Your task to perform on an android device: open a bookmark in the chrome app Image 0: 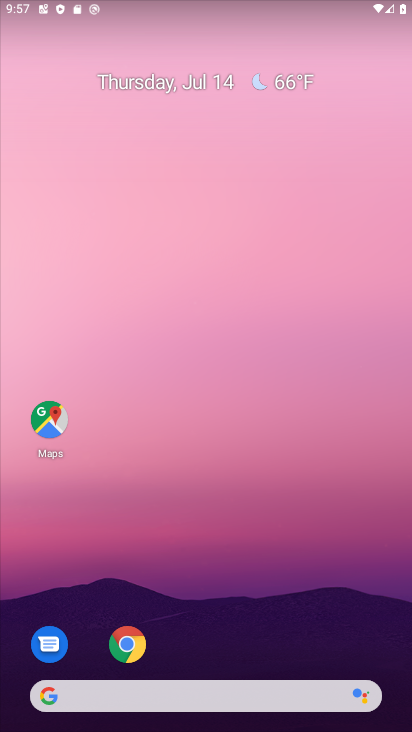
Step 0: click (380, 307)
Your task to perform on an android device: open a bookmark in the chrome app Image 1: 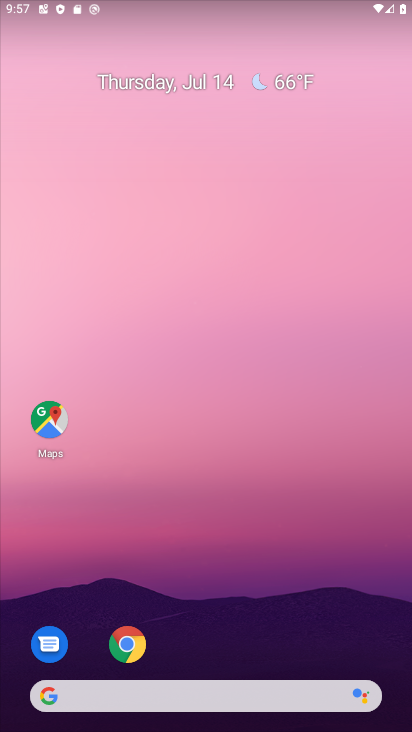
Step 1: drag from (278, 278) to (302, 61)
Your task to perform on an android device: open a bookmark in the chrome app Image 2: 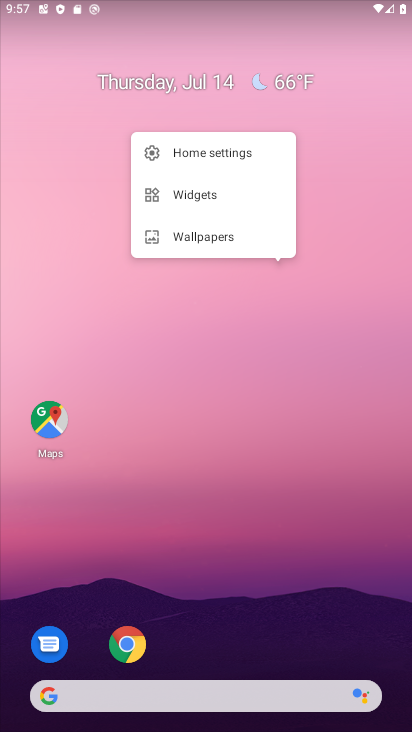
Step 2: drag from (154, 345) to (157, 1)
Your task to perform on an android device: open a bookmark in the chrome app Image 3: 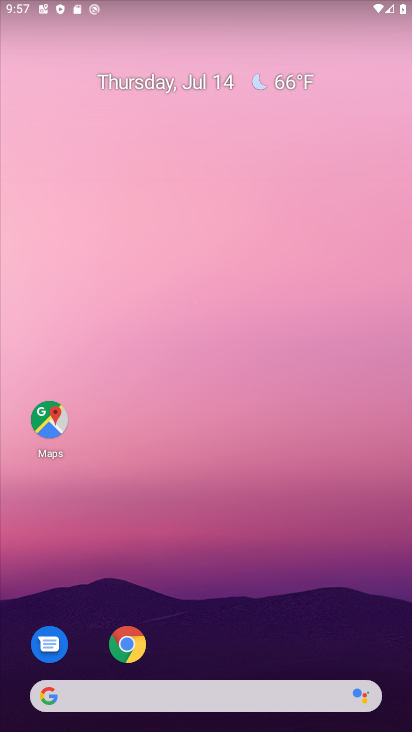
Step 3: drag from (307, 326) to (309, 37)
Your task to perform on an android device: open a bookmark in the chrome app Image 4: 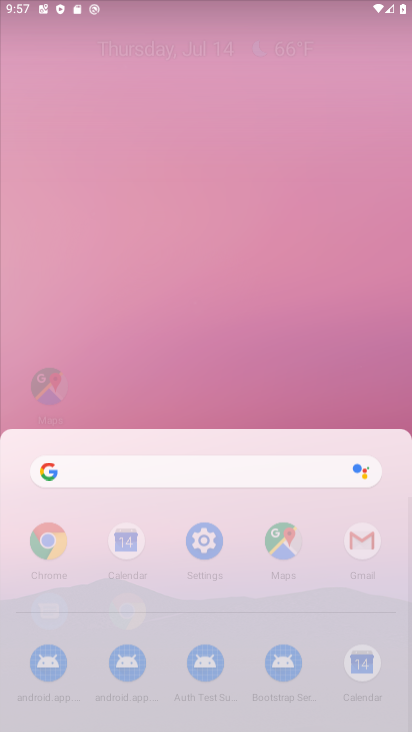
Step 4: drag from (290, 151) to (251, 7)
Your task to perform on an android device: open a bookmark in the chrome app Image 5: 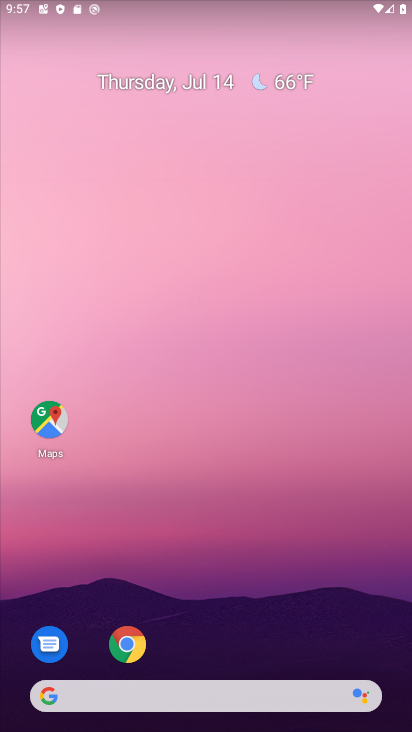
Step 5: drag from (183, 292) to (149, 183)
Your task to perform on an android device: open a bookmark in the chrome app Image 6: 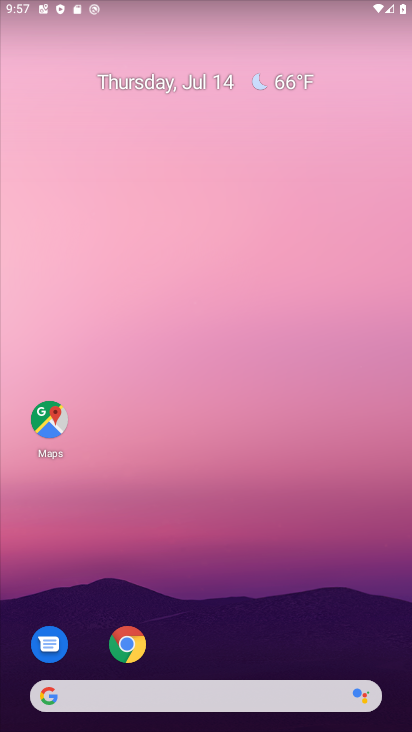
Step 6: drag from (156, 610) to (0, 11)
Your task to perform on an android device: open a bookmark in the chrome app Image 7: 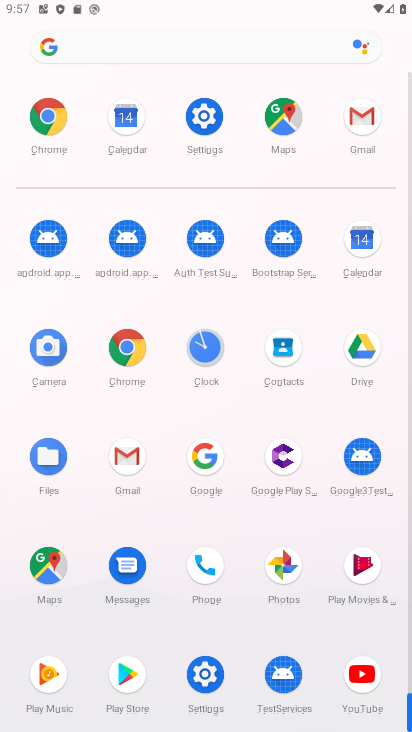
Step 7: click (126, 355)
Your task to perform on an android device: open a bookmark in the chrome app Image 8: 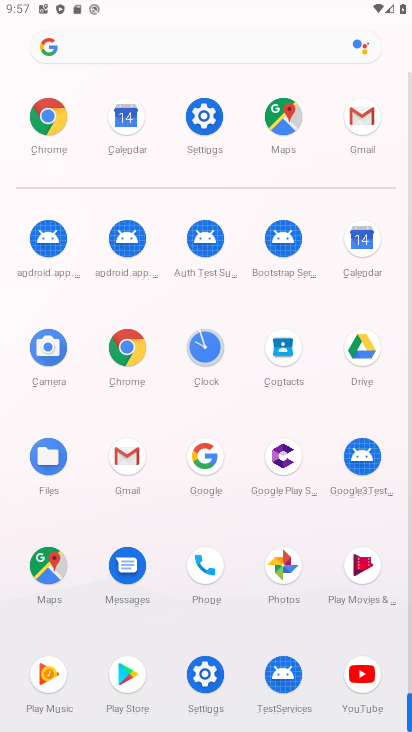
Step 8: click (128, 346)
Your task to perform on an android device: open a bookmark in the chrome app Image 9: 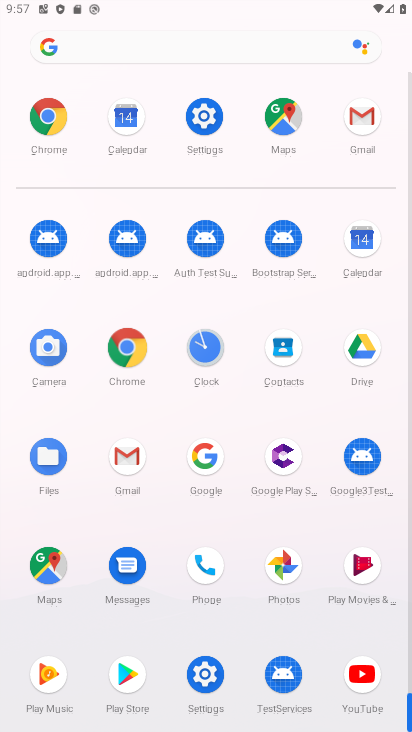
Step 9: click (131, 347)
Your task to perform on an android device: open a bookmark in the chrome app Image 10: 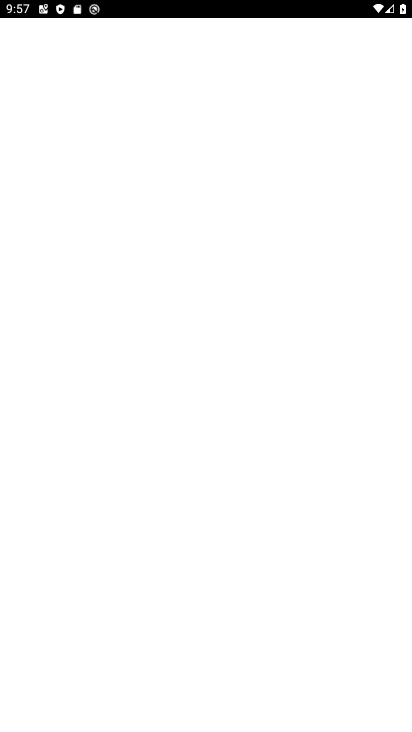
Step 10: click (134, 348)
Your task to perform on an android device: open a bookmark in the chrome app Image 11: 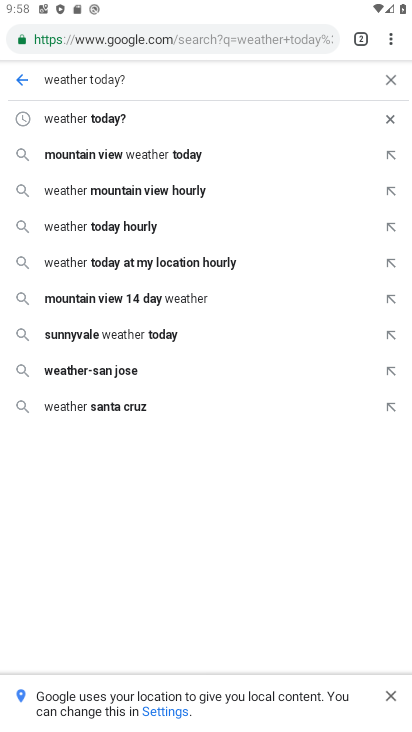
Step 11: click (22, 79)
Your task to perform on an android device: open a bookmark in the chrome app Image 12: 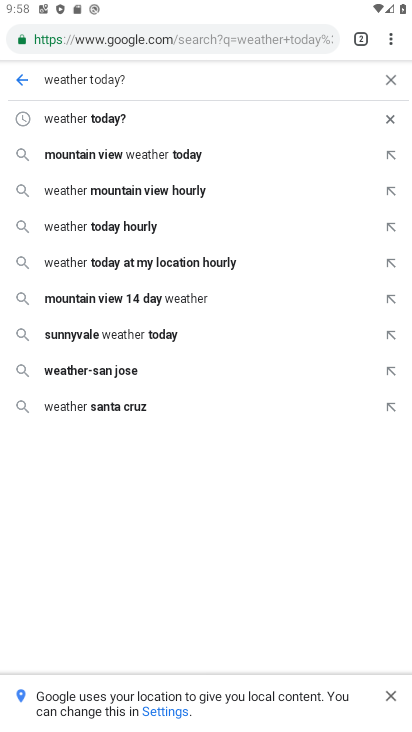
Step 12: click (21, 77)
Your task to perform on an android device: open a bookmark in the chrome app Image 13: 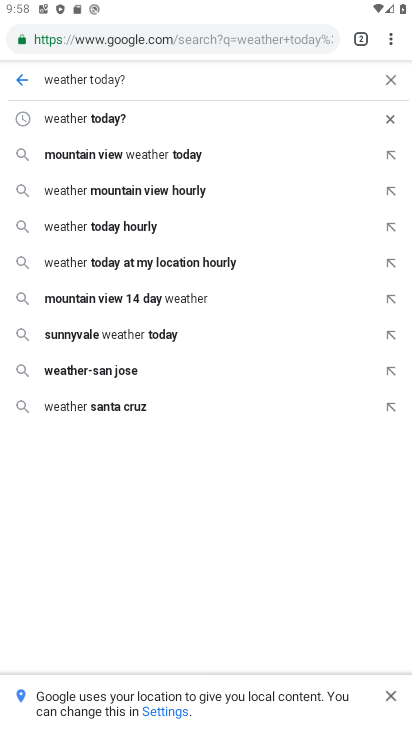
Step 13: click (21, 77)
Your task to perform on an android device: open a bookmark in the chrome app Image 14: 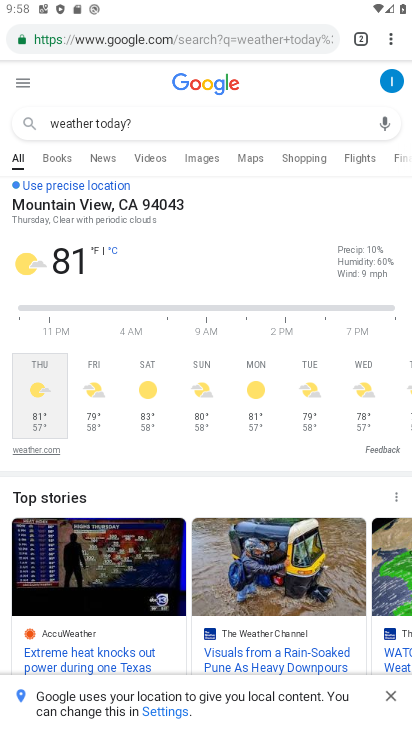
Step 14: drag from (389, 39) to (257, 148)
Your task to perform on an android device: open a bookmark in the chrome app Image 15: 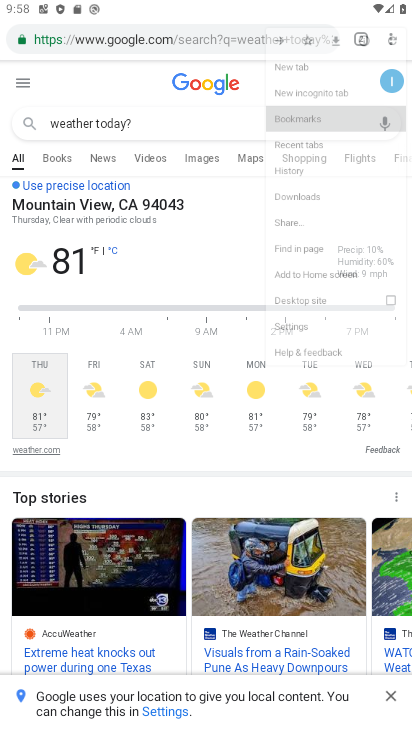
Step 15: click (276, 162)
Your task to perform on an android device: open a bookmark in the chrome app Image 16: 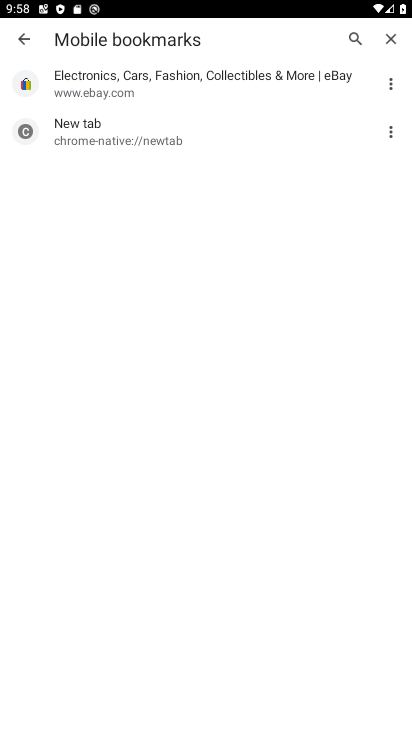
Step 16: task complete